Your task to perform on an android device: move an email to a new category in the gmail app Image 0: 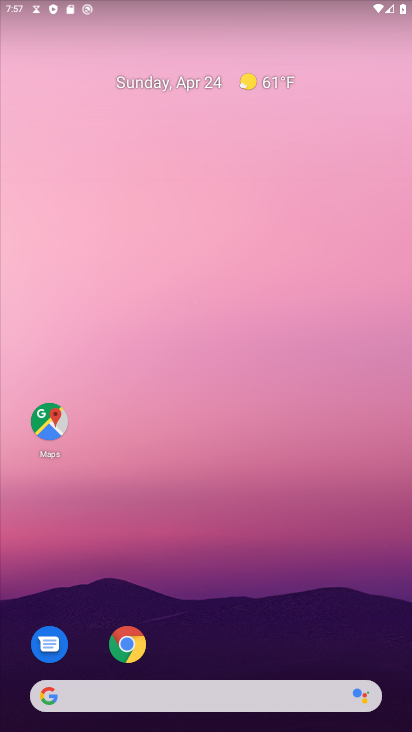
Step 0: drag from (210, 689) to (246, 211)
Your task to perform on an android device: move an email to a new category in the gmail app Image 1: 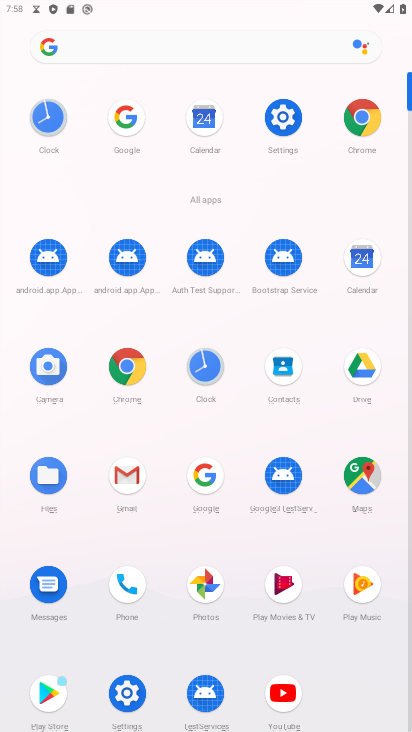
Step 1: click (131, 475)
Your task to perform on an android device: move an email to a new category in the gmail app Image 2: 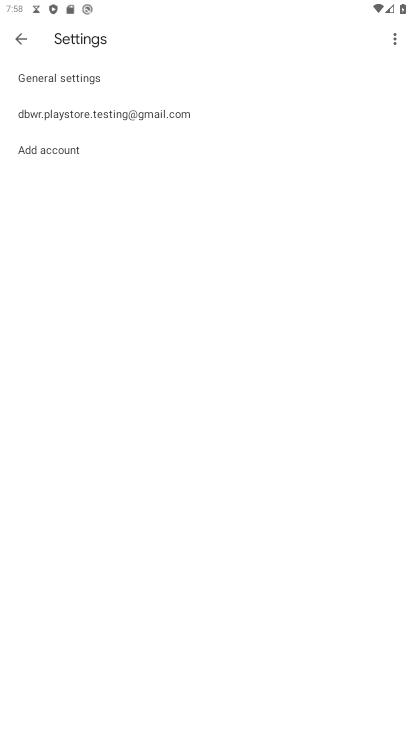
Step 2: click (23, 42)
Your task to perform on an android device: move an email to a new category in the gmail app Image 3: 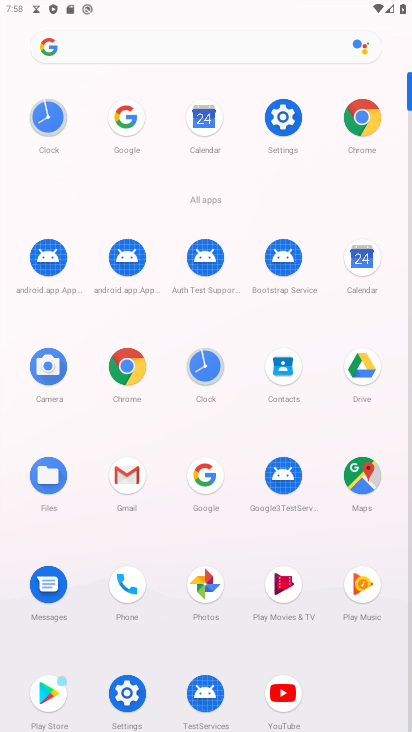
Step 3: click (96, 477)
Your task to perform on an android device: move an email to a new category in the gmail app Image 4: 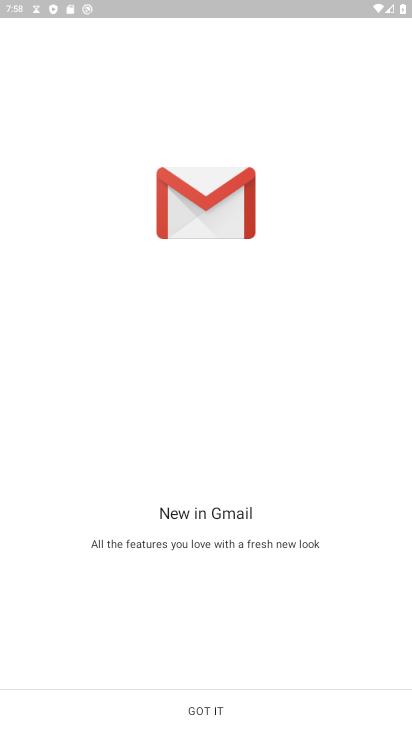
Step 4: click (253, 716)
Your task to perform on an android device: move an email to a new category in the gmail app Image 5: 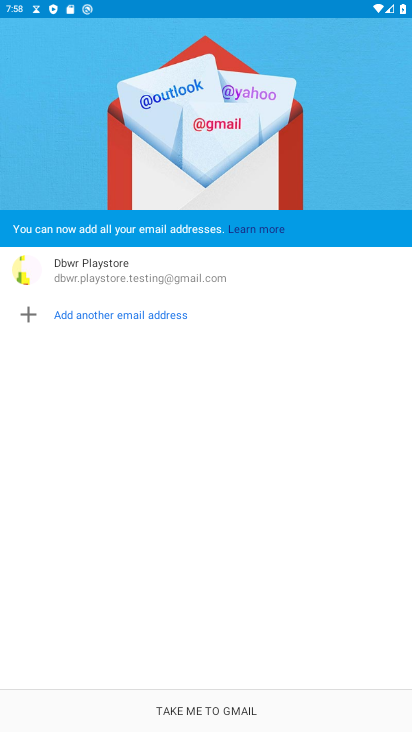
Step 5: click (253, 716)
Your task to perform on an android device: move an email to a new category in the gmail app Image 6: 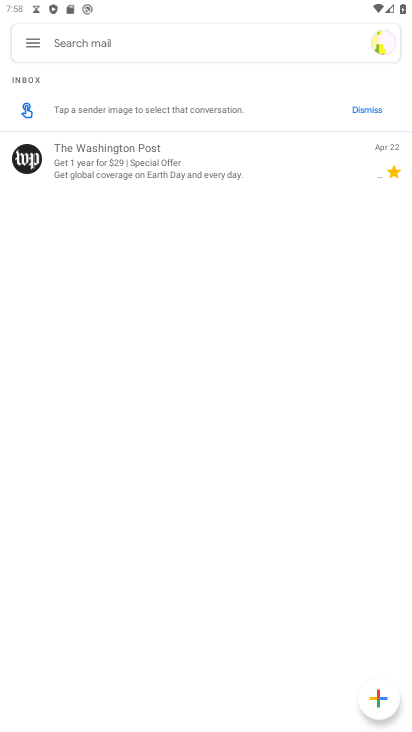
Step 6: click (30, 159)
Your task to perform on an android device: move an email to a new category in the gmail app Image 7: 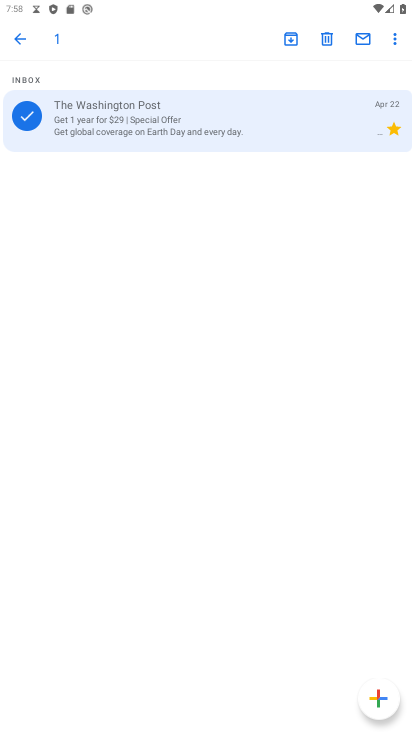
Step 7: click (391, 38)
Your task to perform on an android device: move an email to a new category in the gmail app Image 8: 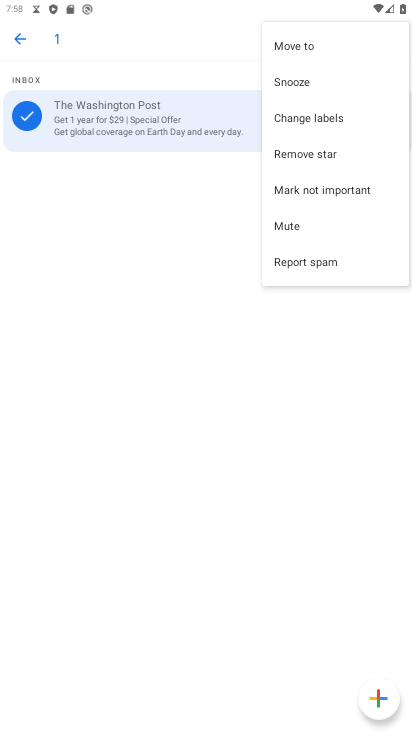
Step 8: click (328, 49)
Your task to perform on an android device: move an email to a new category in the gmail app Image 9: 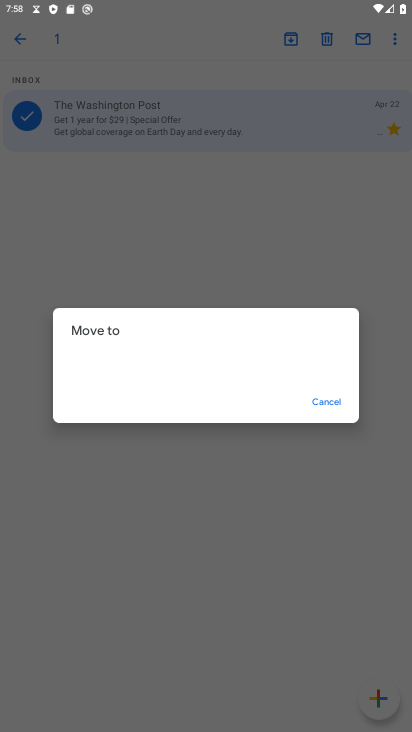
Step 9: task complete